Your task to perform on an android device: turn pop-ups off in chrome Image 0: 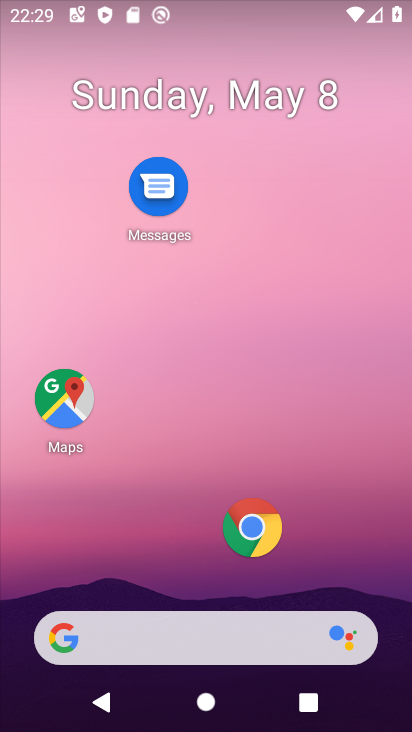
Step 0: click (251, 528)
Your task to perform on an android device: turn pop-ups off in chrome Image 1: 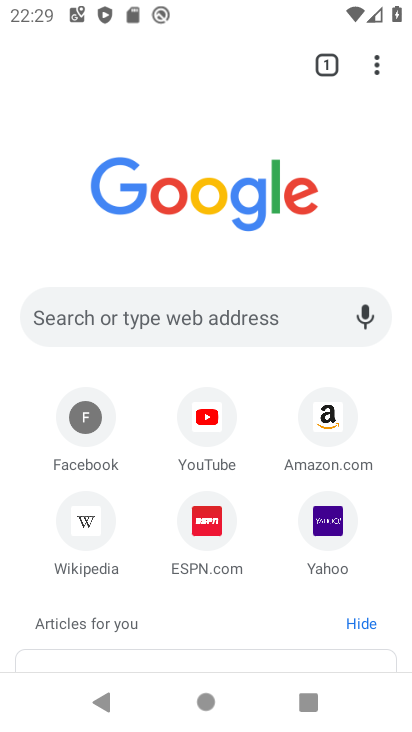
Step 1: click (370, 65)
Your task to perform on an android device: turn pop-ups off in chrome Image 2: 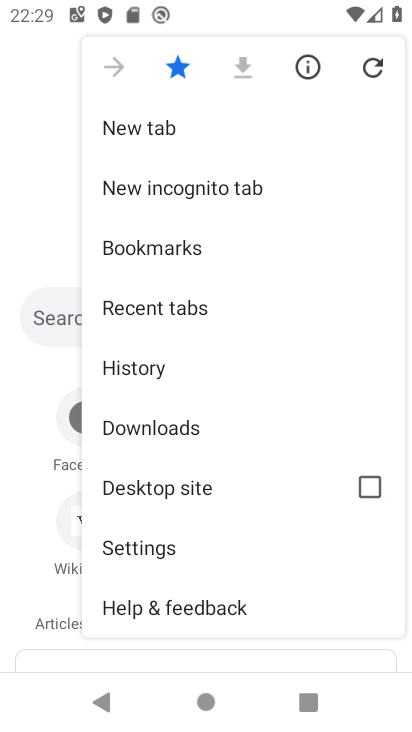
Step 2: click (170, 535)
Your task to perform on an android device: turn pop-ups off in chrome Image 3: 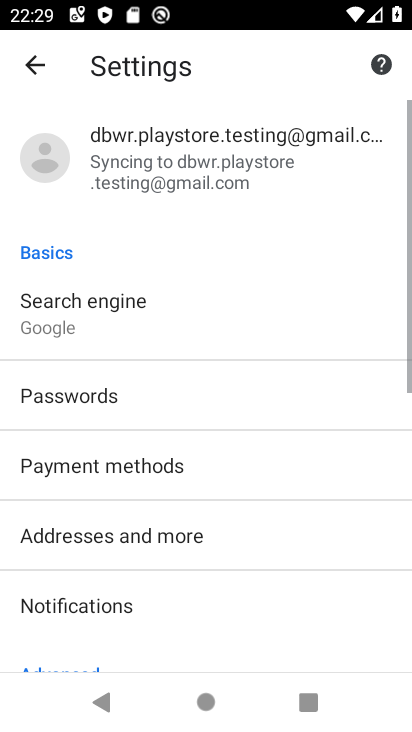
Step 3: drag from (170, 535) to (155, 79)
Your task to perform on an android device: turn pop-ups off in chrome Image 4: 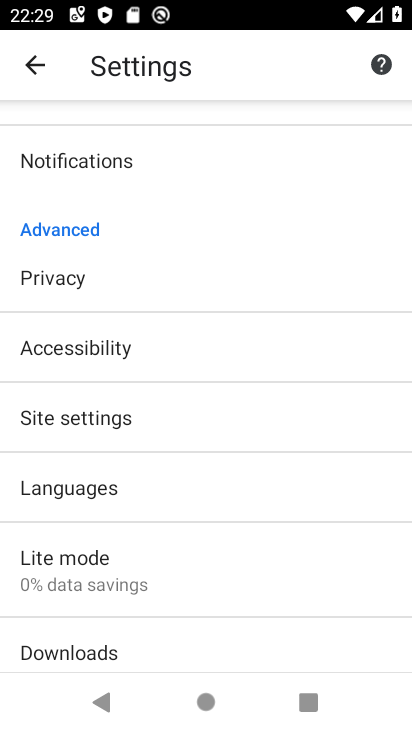
Step 4: click (114, 407)
Your task to perform on an android device: turn pop-ups off in chrome Image 5: 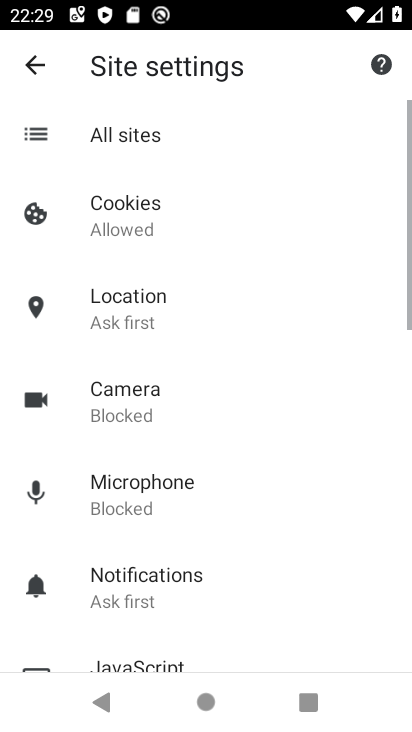
Step 5: drag from (232, 539) to (210, 233)
Your task to perform on an android device: turn pop-ups off in chrome Image 6: 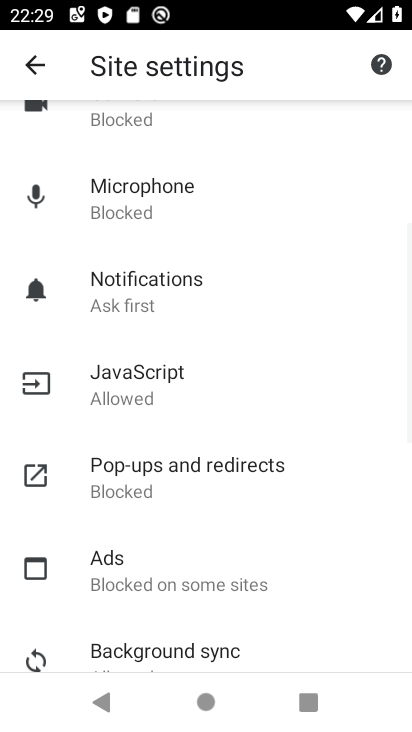
Step 6: click (164, 475)
Your task to perform on an android device: turn pop-ups off in chrome Image 7: 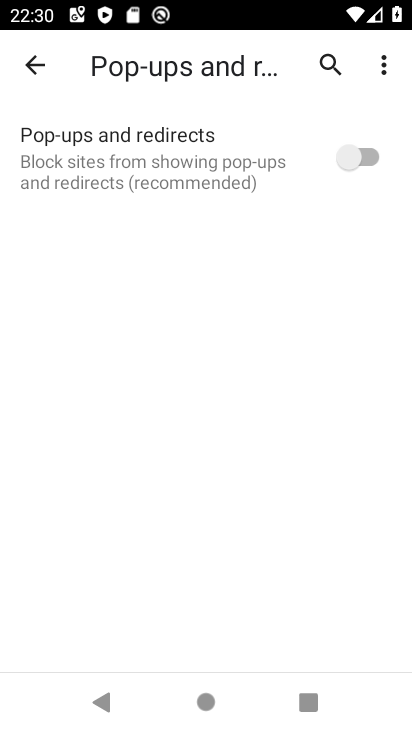
Step 7: task complete